Your task to perform on an android device: Search for seafood restaurants on Google Maps Image 0: 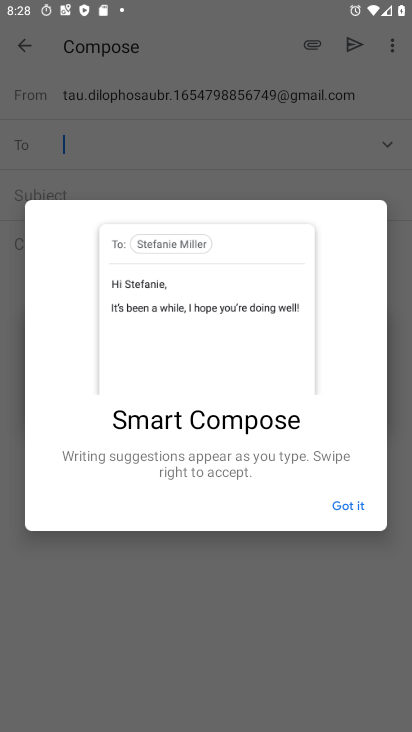
Step 0: press home button
Your task to perform on an android device: Search for seafood restaurants on Google Maps Image 1: 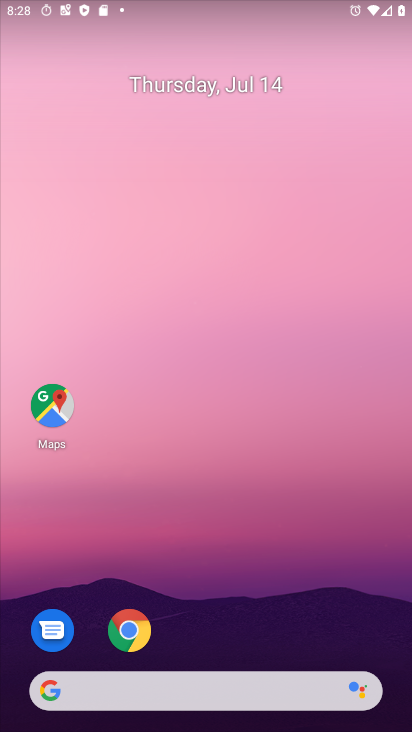
Step 1: drag from (198, 686) to (181, 189)
Your task to perform on an android device: Search for seafood restaurants on Google Maps Image 2: 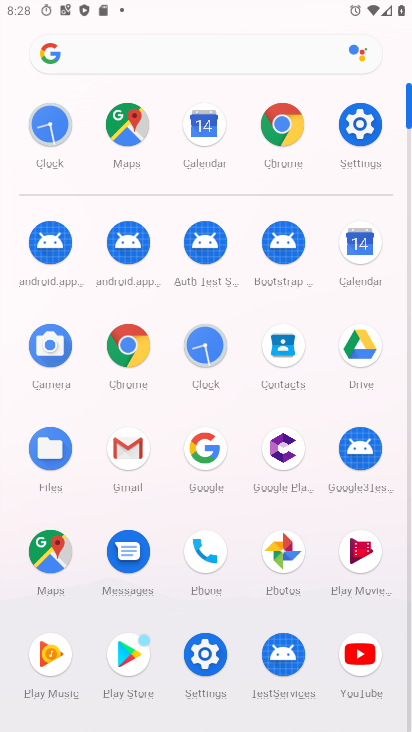
Step 2: click (37, 553)
Your task to perform on an android device: Search for seafood restaurants on Google Maps Image 3: 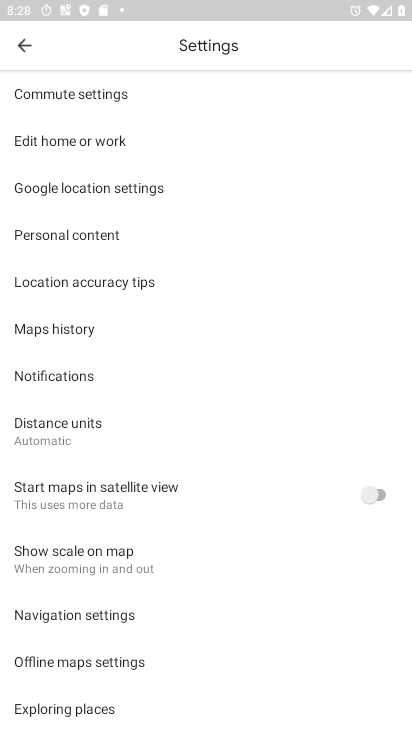
Step 3: click (19, 43)
Your task to perform on an android device: Search for seafood restaurants on Google Maps Image 4: 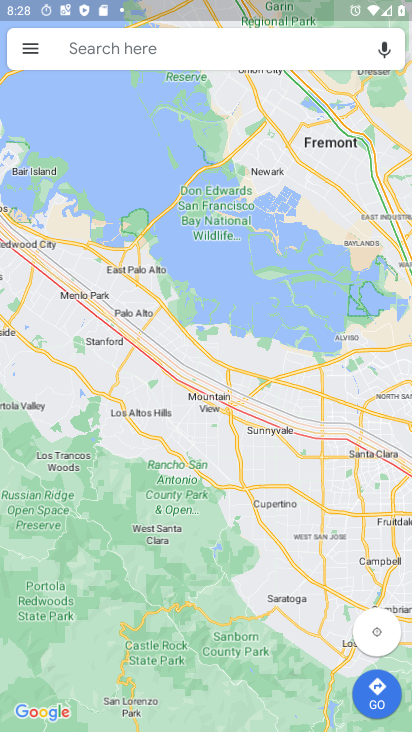
Step 4: click (194, 51)
Your task to perform on an android device: Search for seafood restaurants on Google Maps Image 5: 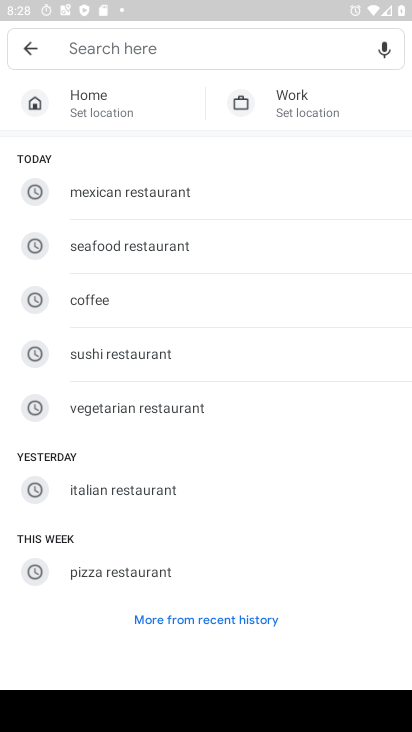
Step 5: type "seafood restaurants"
Your task to perform on an android device: Search for seafood restaurants on Google Maps Image 6: 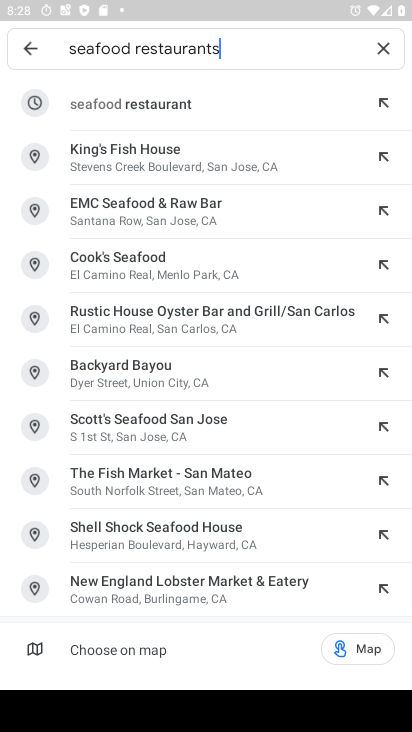
Step 6: click (181, 103)
Your task to perform on an android device: Search for seafood restaurants on Google Maps Image 7: 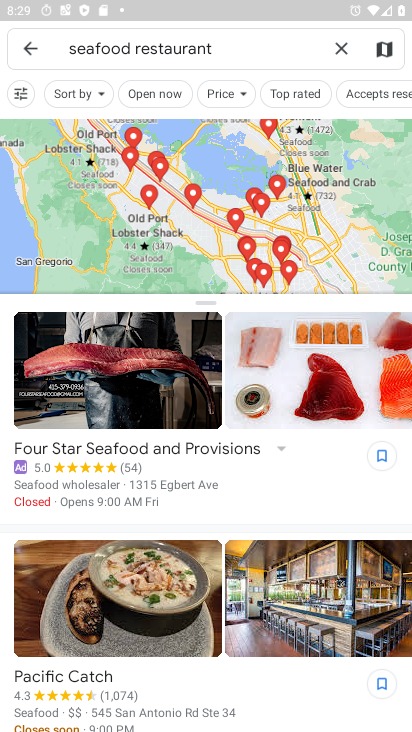
Step 7: task complete